Your task to perform on an android device: Show me recent news Image 0: 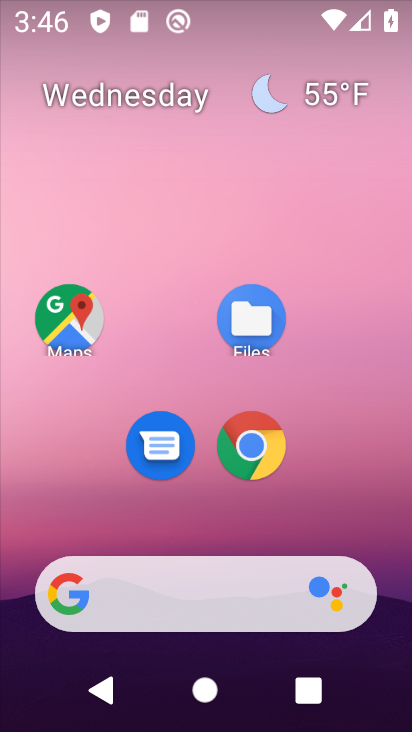
Step 0: click (222, 590)
Your task to perform on an android device: Show me recent news Image 1: 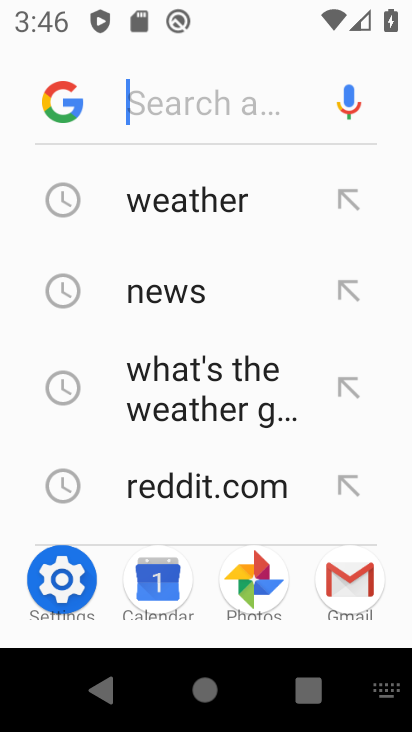
Step 1: type "recent news"
Your task to perform on an android device: Show me recent news Image 2: 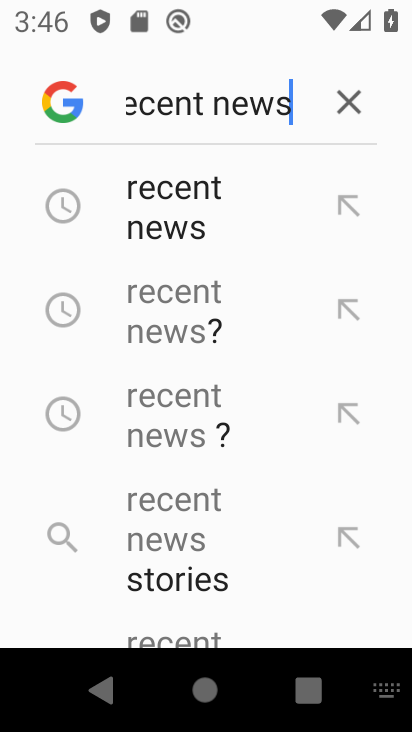
Step 2: click (162, 188)
Your task to perform on an android device: Show me recent news Image 3: 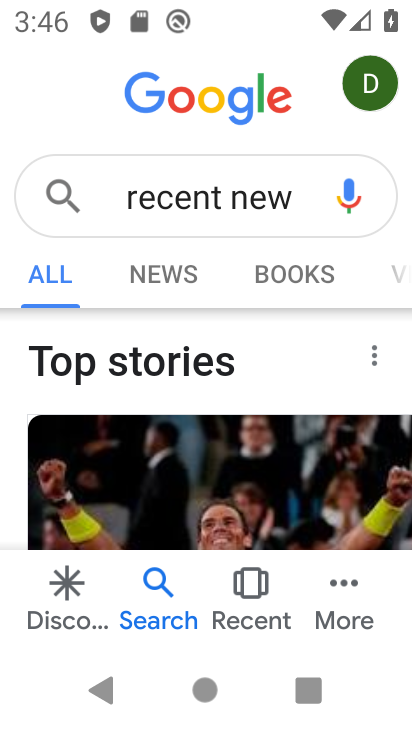
Step 3: task complete